Your task to perform on an android device: turn off translation in the chrome app Image 0: 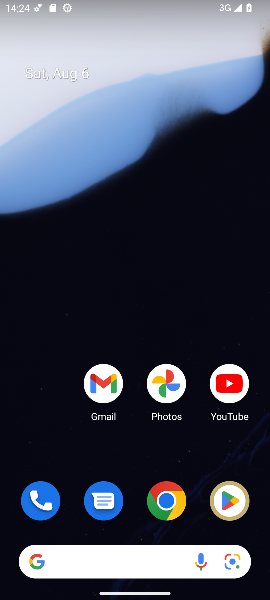
Step 0: press home button
Your task to perform on an android device: turn off translation in the chrome app Image 1: 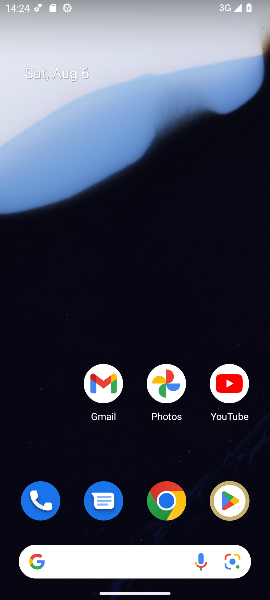
Step 1: click (156, 515)
Your task to perform on an android device: turn off translation in the chrome app Image 2: 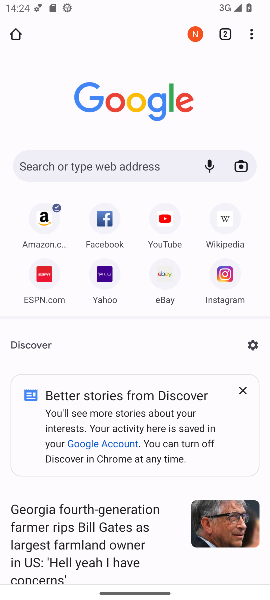
Step 2: drag from (256, 36) to (157, 310)
Your task to perform on an android device: turn off translation in the chrome app Image 3: 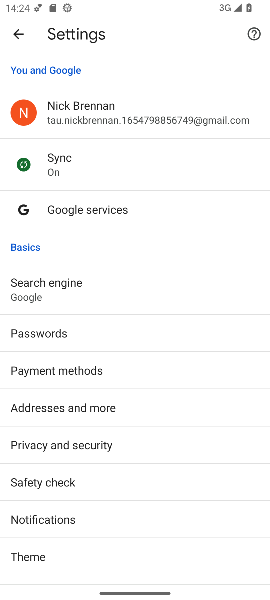
Step 3: drag from (121, 535) to (140, 213)
Your task to perform on an android device: turn off translation in the chrome app Image 4: 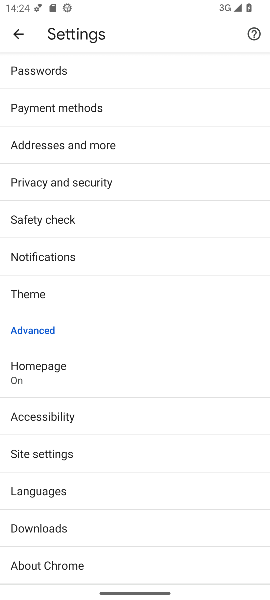
Step 4: click (56, 492)
Your task to perform on an android device: turn off translation in the chrome app Image 5: 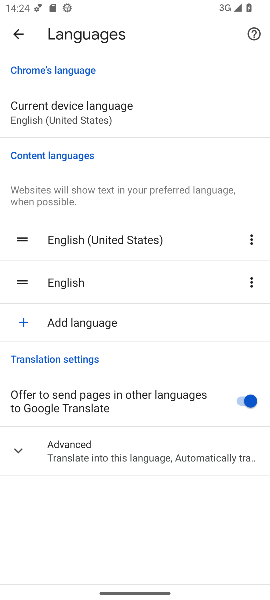
Step 5: click (249, 401)
Your task to perform on an android device: turn off translation in the chrome app Image 6: 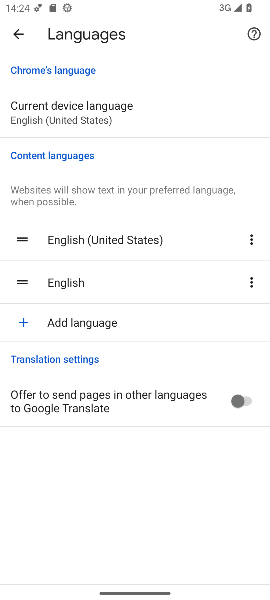
Step 6: task complete